Your task to perform on an android device: turn off notifications settings in the gmail app Image 0: 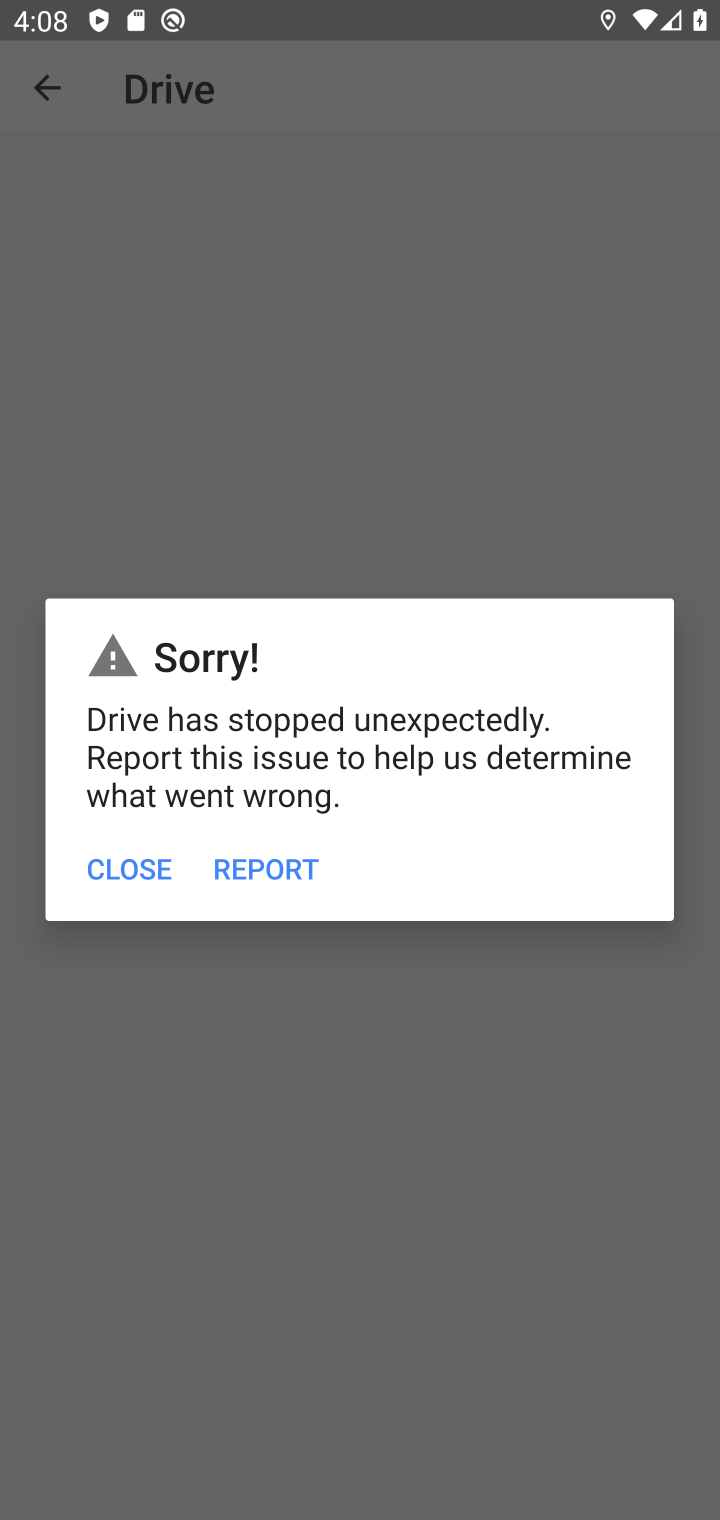
Step 0: press back button
Your task to perform on an android device: turn off notifications settings in the gmail app Image 1: 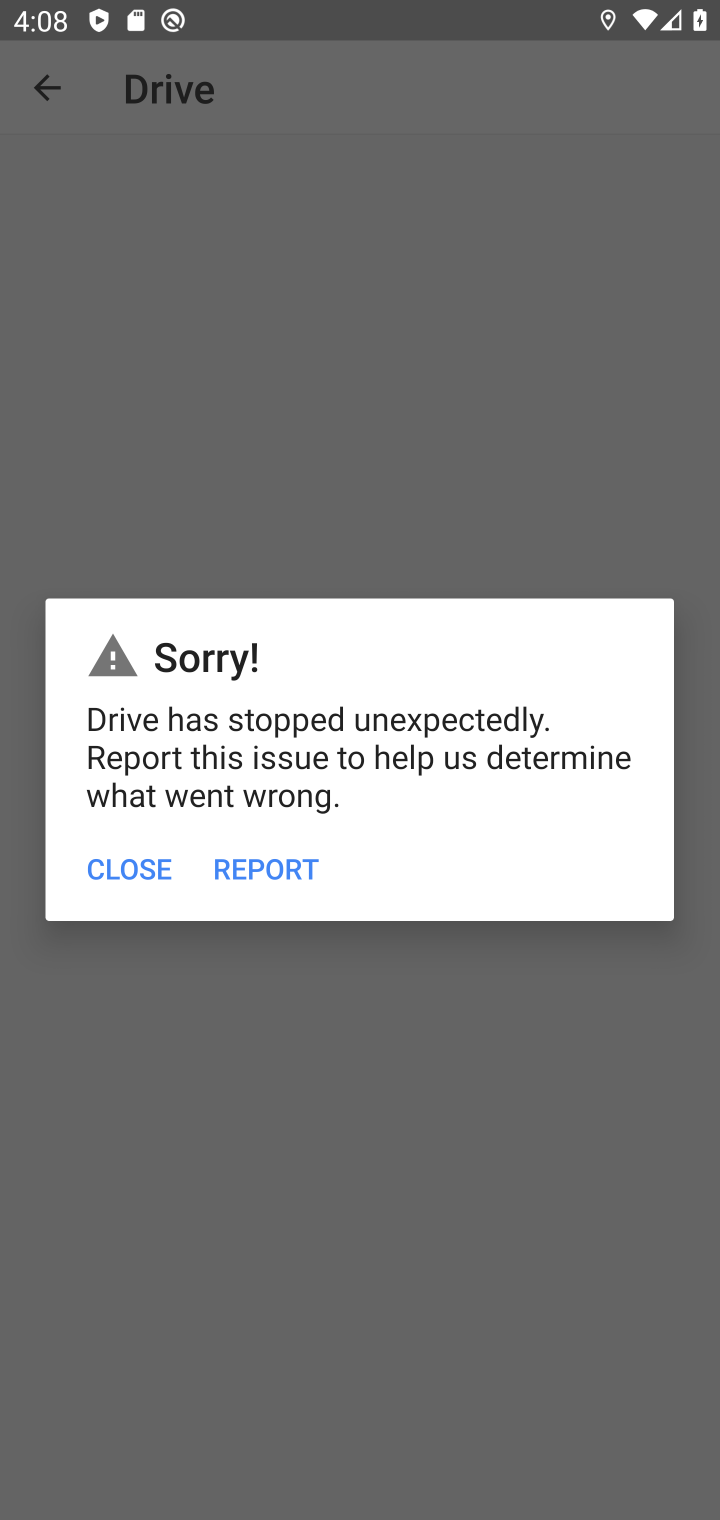
Step 1: press back button
Your task to perform on an android device: turn off notifications settings in the gmail app Image 2: 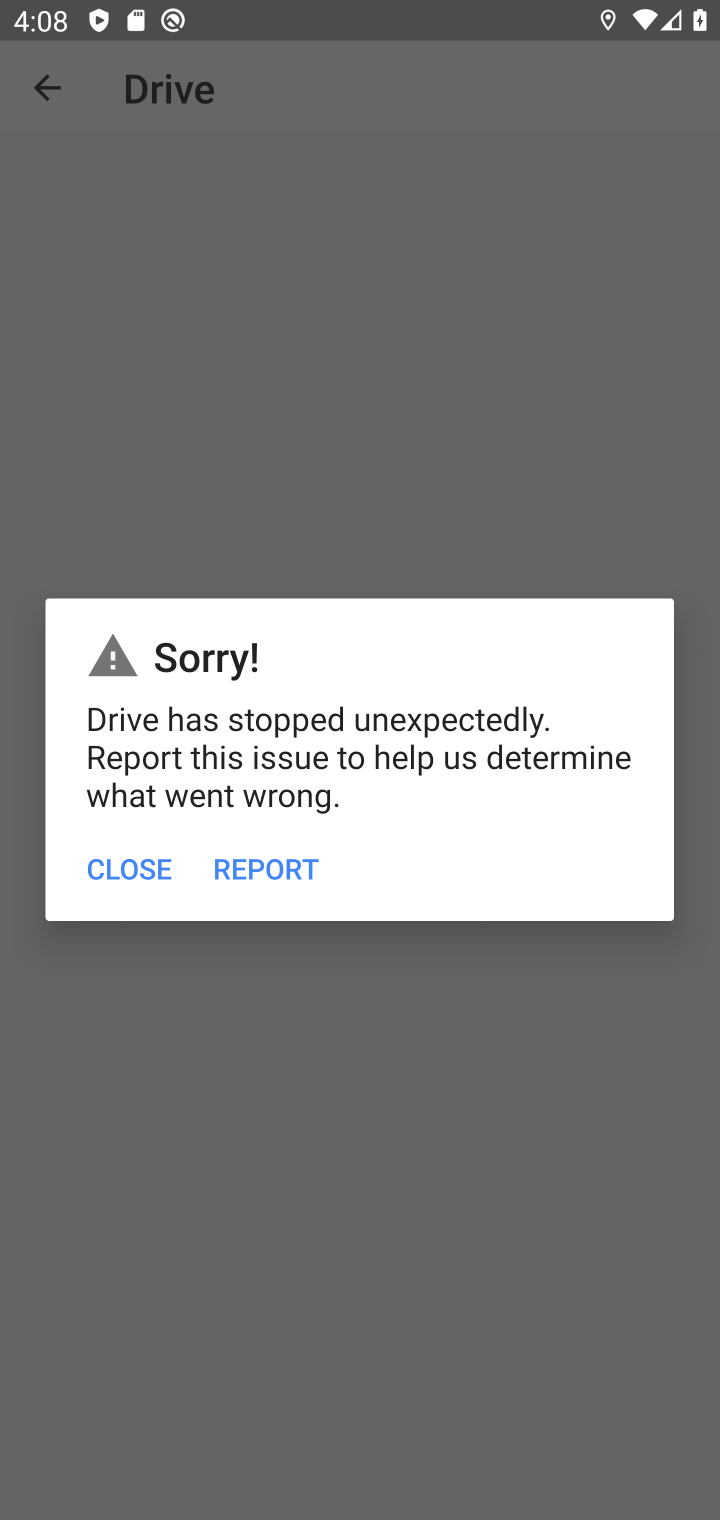
Step 2: press home button
Your task to perform on an android device: turn off notifications settings in the gmail app Image 3: 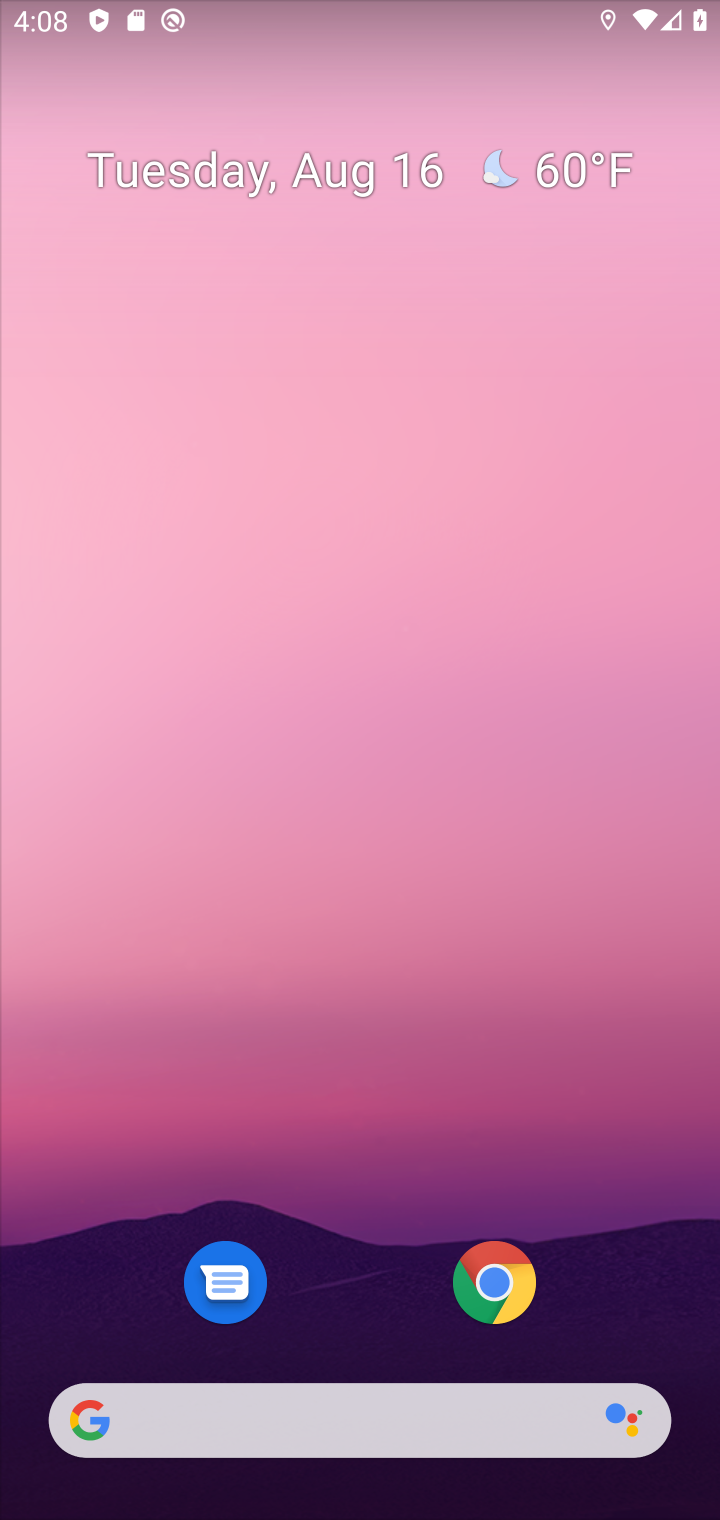
Step 3: drag from (349, 1387) to (494, 52)
Your task to perform on an android device: turn off notifications settings in the gmail app Image 4: 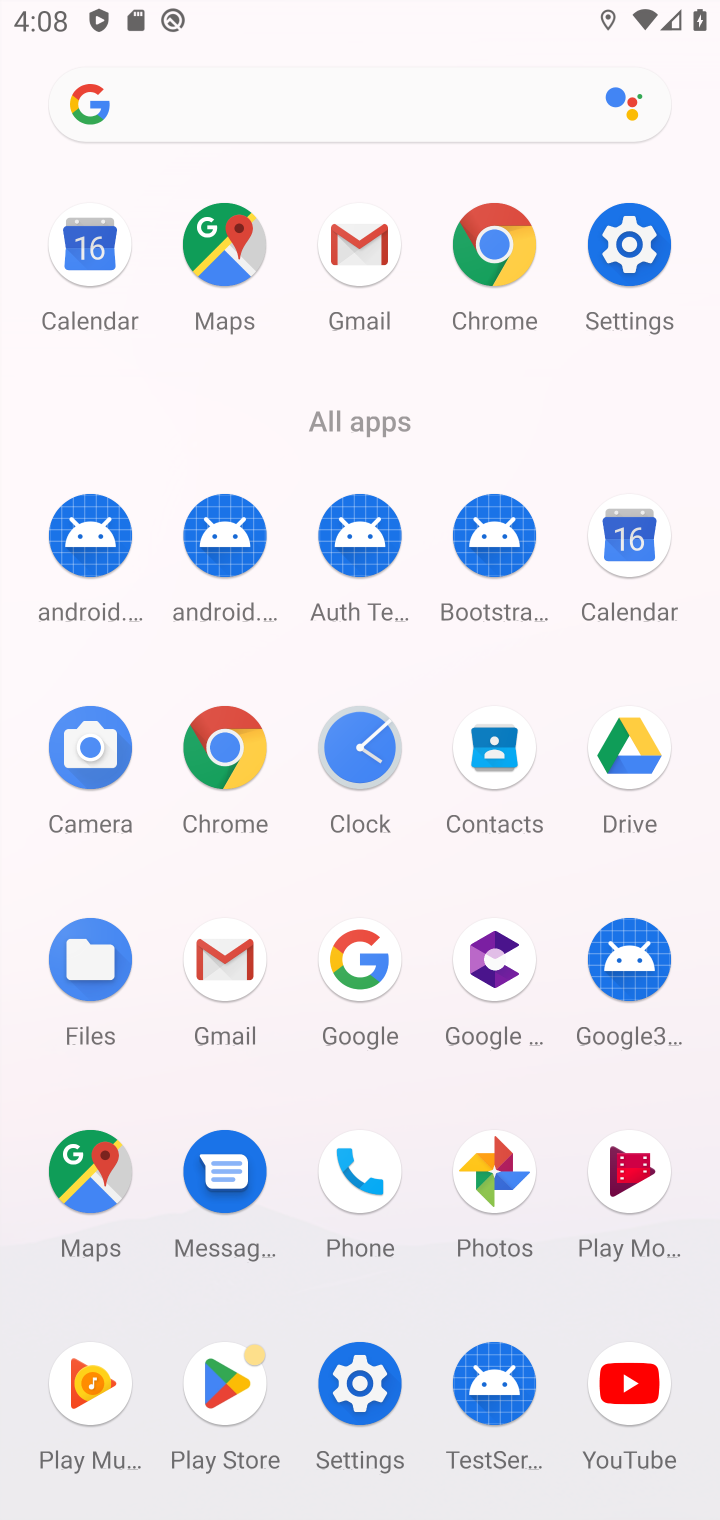
Step 4: click (362, 253)
Your task to perform on an android device: turn off notifications settings in the gmail app Image 5: 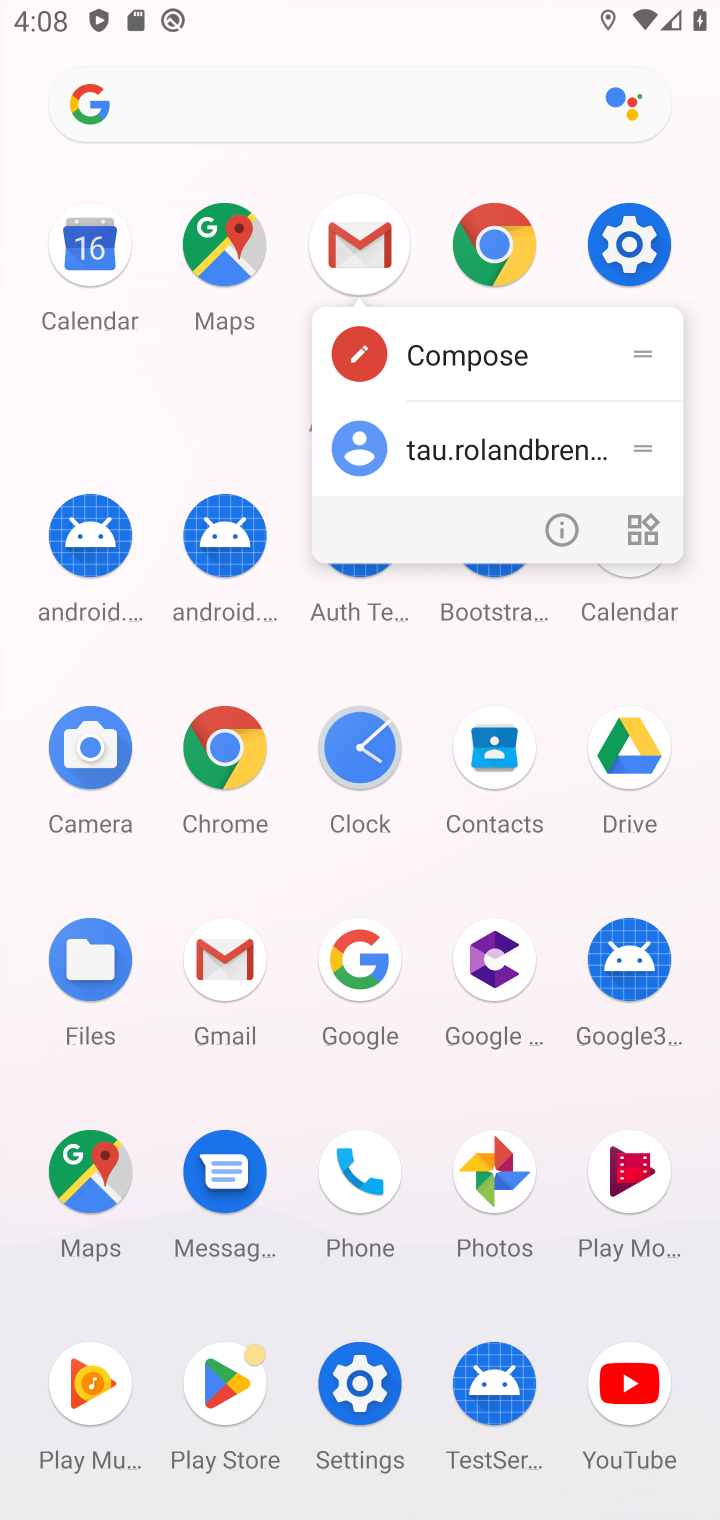
Step 5: click (565, 512)
Your task to perform on an android device: turn off notifications settings in the gmail app Image 6: 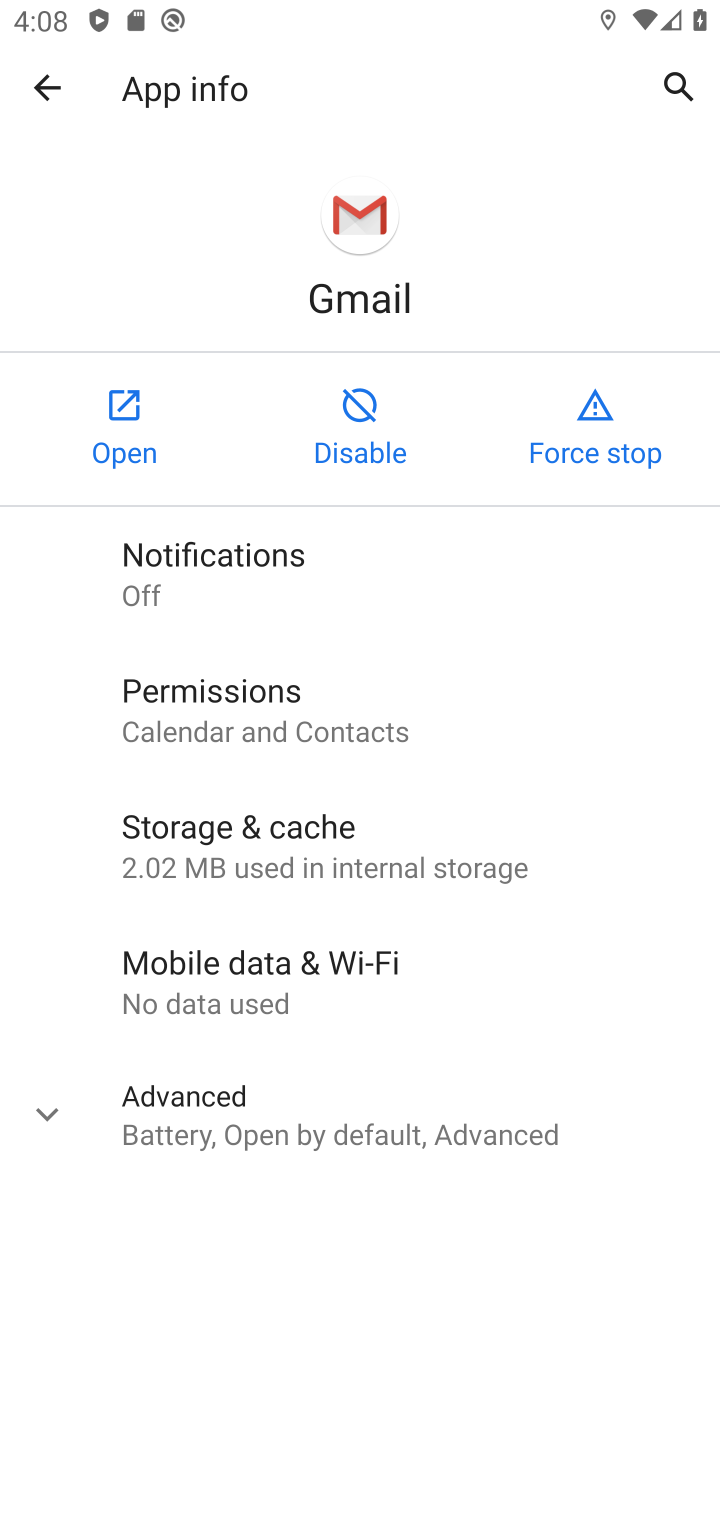
Step 6: click (233, 574)
Your task to perform on an android device: turn off notifications settings in the gmail app Image 7: 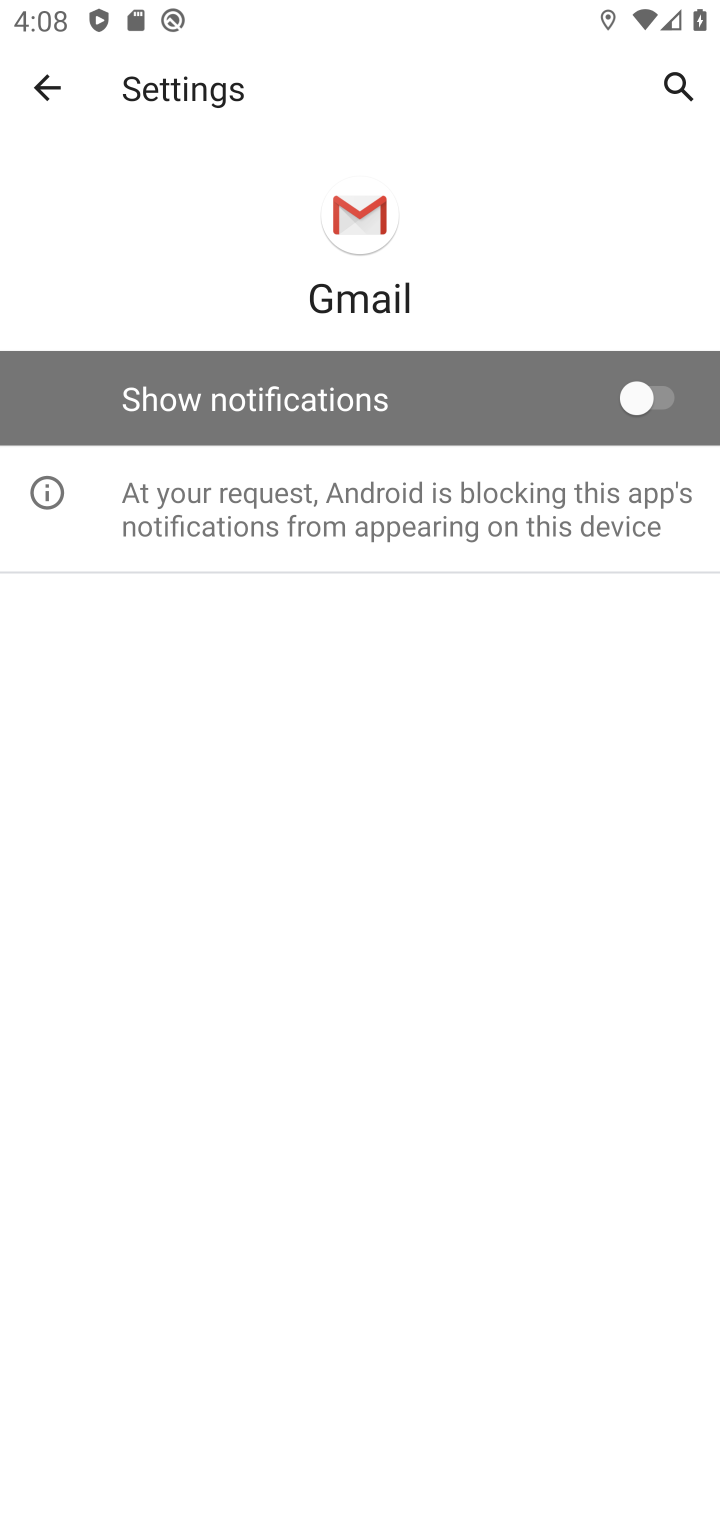
Step 7: task complete